Your task to perform on an android device: turn notification dots on Image 0: 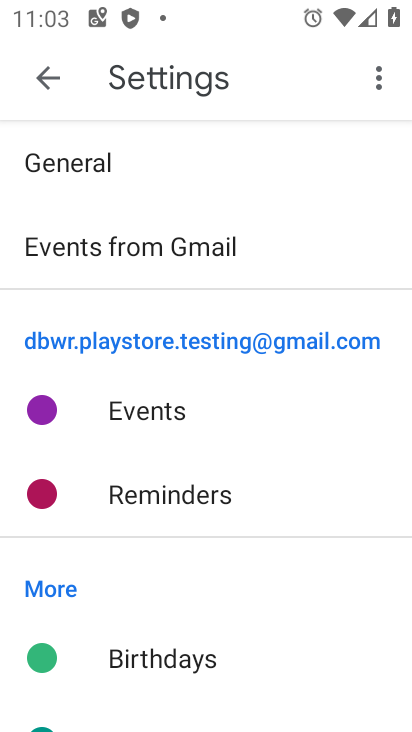
Step 0: press home button
Your task to perform on an android device: turn notification dots on Image 1: 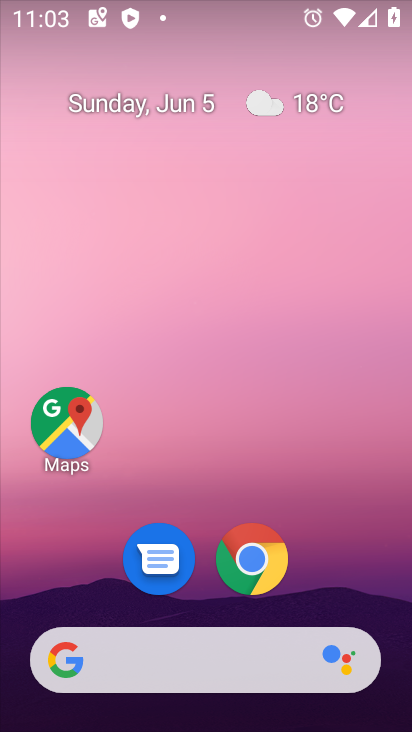
Step 1: drag from (389, 661) to (371, 188)
Your task to perform on an android device: turn notification dots on Image 2: 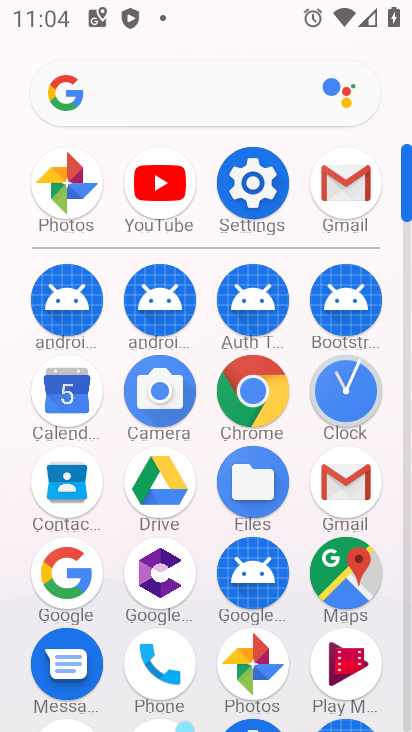
Step 2: click (246, 182)
Your task to perform on an android device: turn notification dots on Image 3: 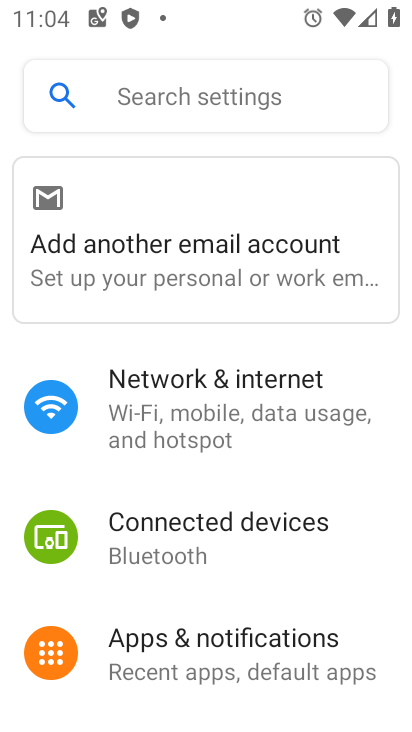
Step 3: click (141, 676)
Your task to perform on an android device: turn notification dots on Image 4: 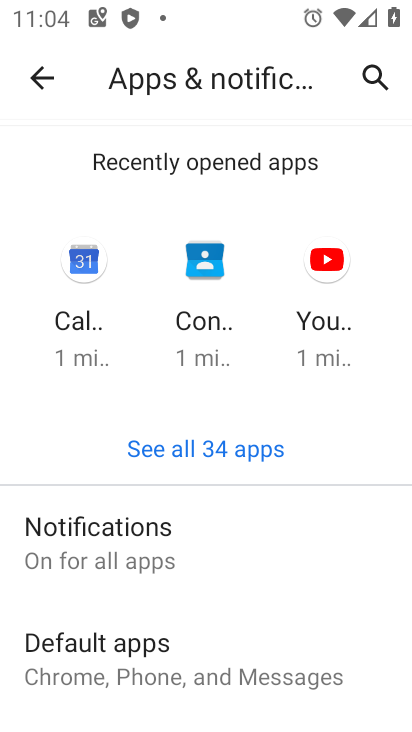
Step 4: click (105, 525)
Your task to perform on an android device: turn notification dots on Image 5: 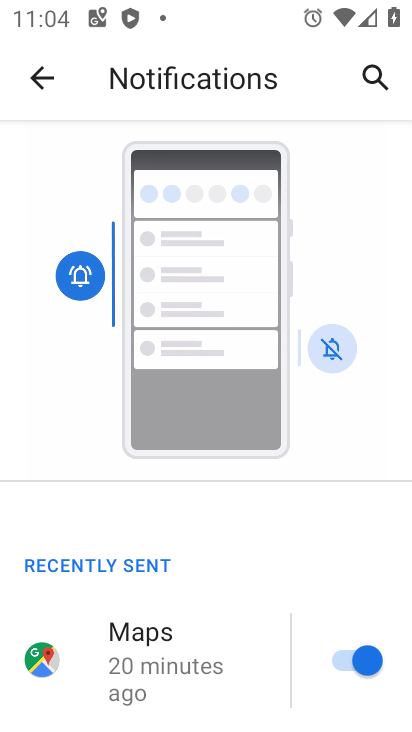
Step 5: drag from (256, 690) to (316, 336)
Your task to perform on an android device: turn notification dots on Image 6: 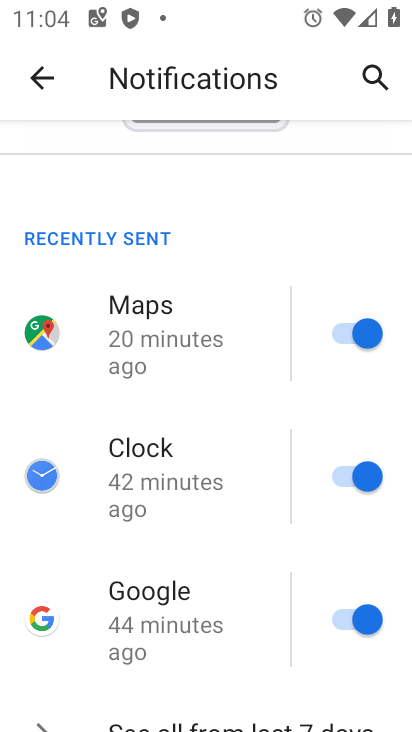
Step 6: drag from (187, 685) to (165, 199)
Your task to perform on an android device: turn notification dots on Image 7: 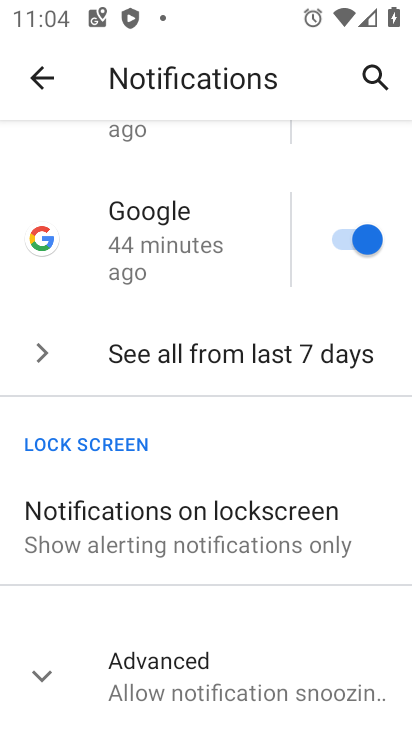
Step 7: drag from (260, 432) to (247, 241)
Your task to perform on an android device: turn notification dots on Image 8: 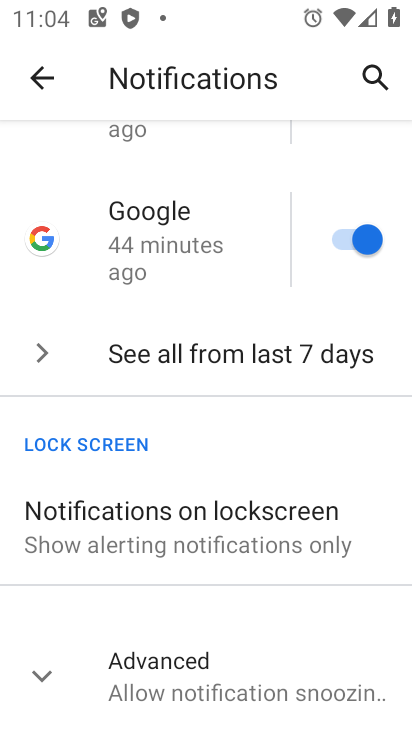
Step 8: drag from (210, 671) to (181, 264)
Your task to perform on an android device: turn notification dots on Image 9: 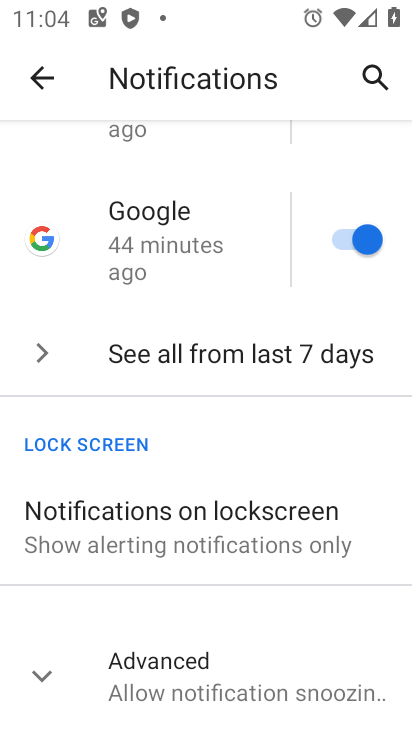
Step 9: click (31, 673)
Your task to perform on an android device: turn notification dots on Image 10: 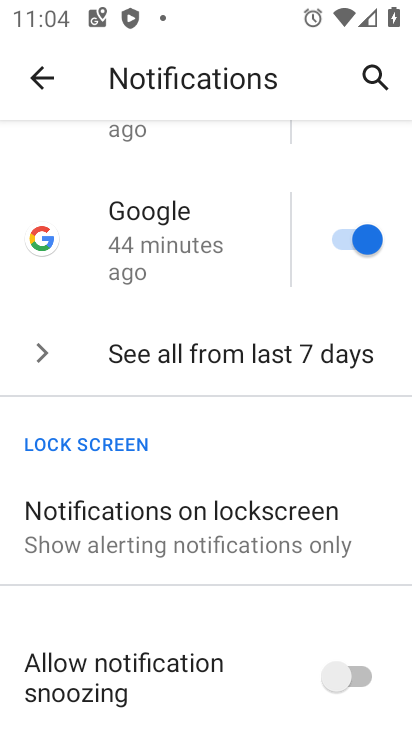
Step 10: task complete